Your task to perform on an android device: turn on the 24-hour format for clock Image 0: 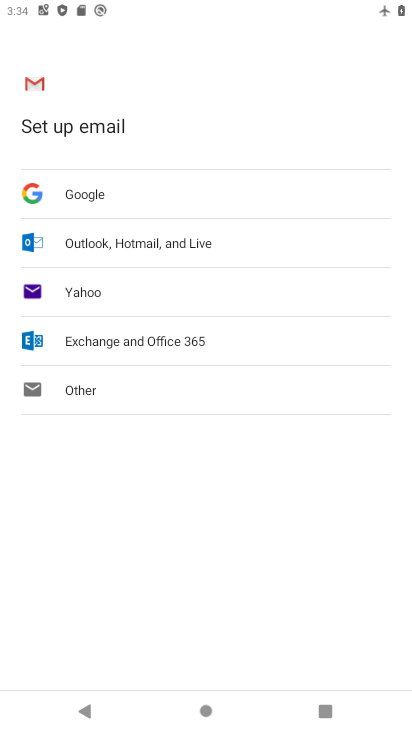
Step 0: press back button
Your task to perform on an android device: turn on the 24-hour format for clock Image 1: 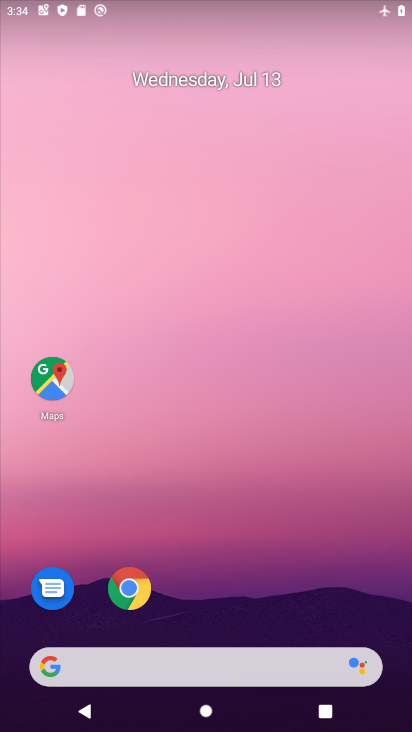
Step 1: drag from (274, 635) to (217, 276)
Your task to perform on an android device: turn on the 24-hour format for clock Image 2: 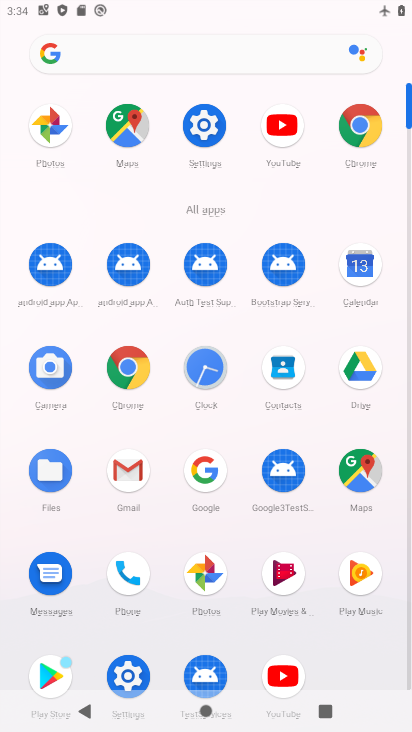
Step 2: click (207, 363)
Your task to perform on an android device: turn on the 24-hour format for clock Image 3: 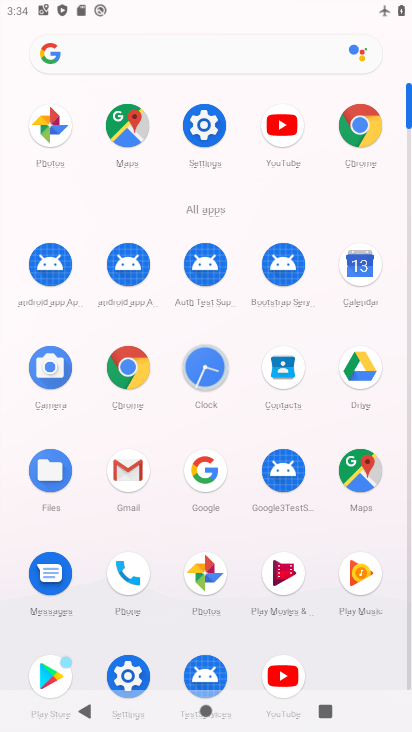
Step 3: click (210, 370)
Your task to perform on an android device: turn on the 24-hour format for clock Image 4: 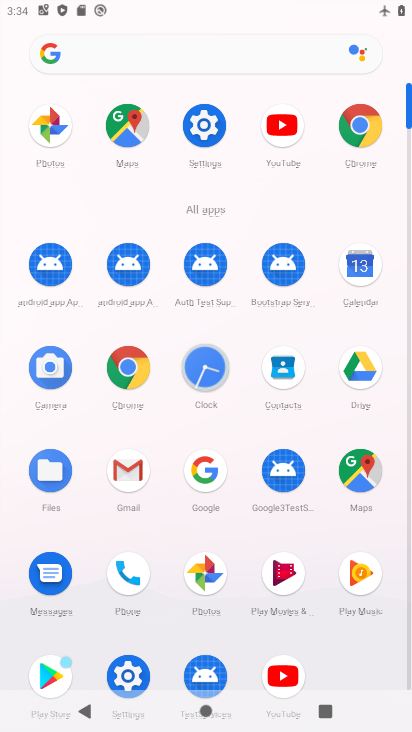
Step 4: click (210, 371)
Your task to perform on an android device: turn on the 24-hour format for clock Image 5: 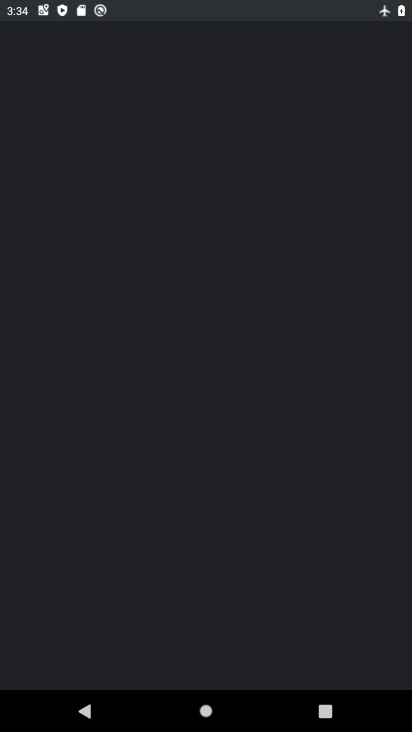
Step 5: click (210, 371)
Your task to perform on an android device: turn on the 24-hour format for clock Image 6: 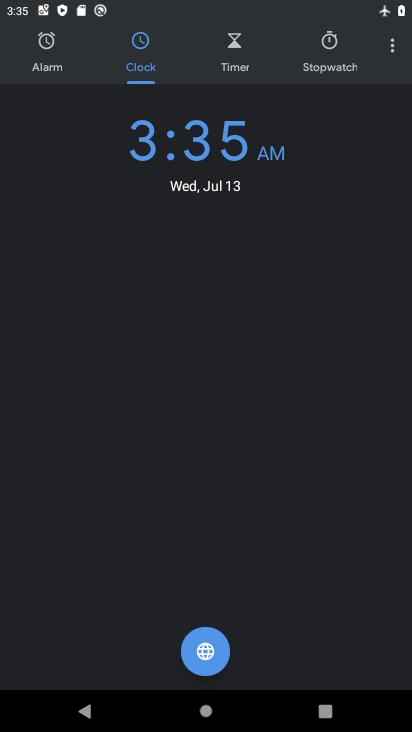
Step 6: click (388, 45)
Your task to perform on an android device: turn on the 24-hour format for clock Image 7: 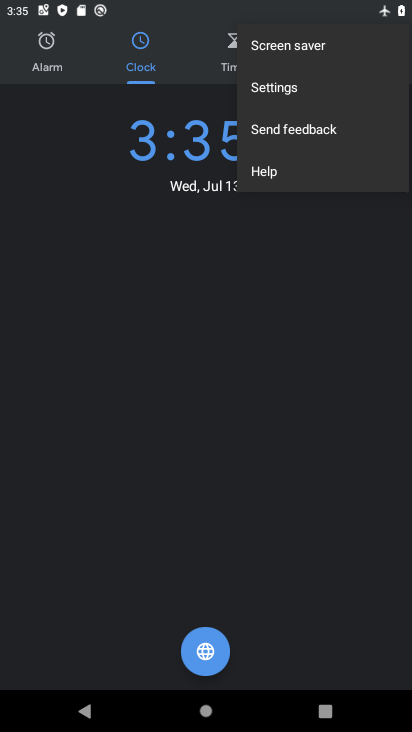
Step 7: click (276, 82)
Your task to perform on an android device: turn on the 24-hour format for clock Image 8: 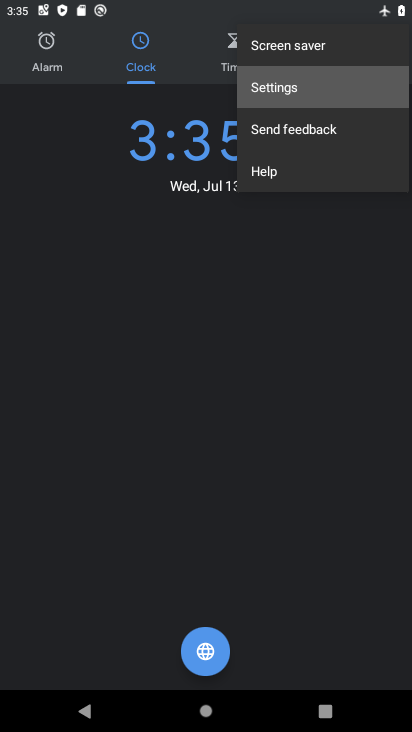
Step 8: click (276, 82)
Your task to perform on an android device: turn on the 24-hour format for clock Image 9: 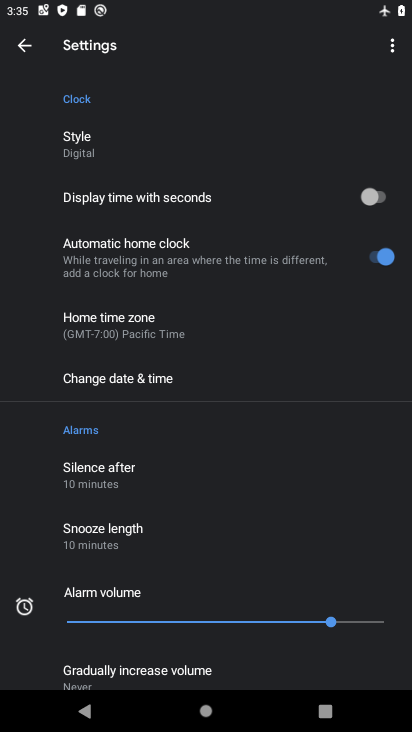
Step 9: click (126, 361)
Your task to perform on an android device: turn on the 24-hour format for clock Image 10: 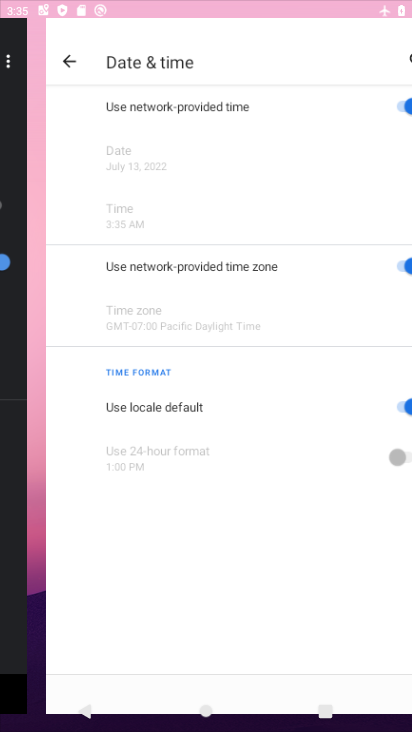
Step 10: click (121, 381)
Your task to perform on an android device: turn on the 24-hour format for clock Image 11: 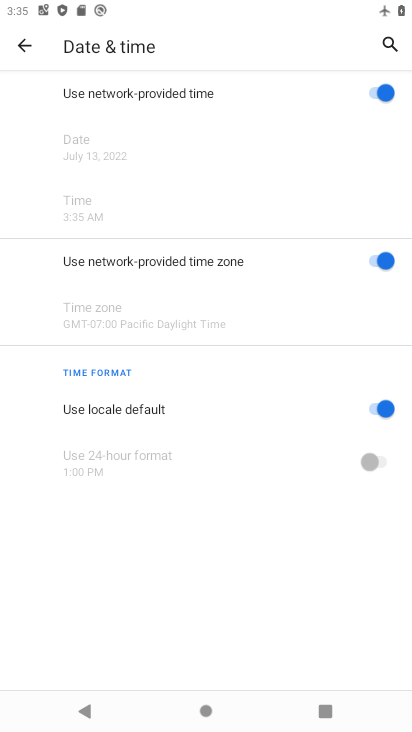
Step 11: click (387, 408)
Your task to perform on an android device: turn on the 24-hour format for clock Image 12: 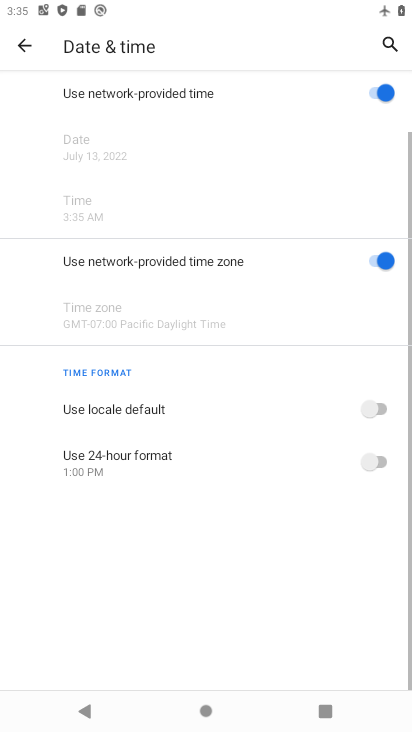
Step 12: click (372, 461)
Your task to perform on an android device: turn on the 24-hour format for clock Image 13: 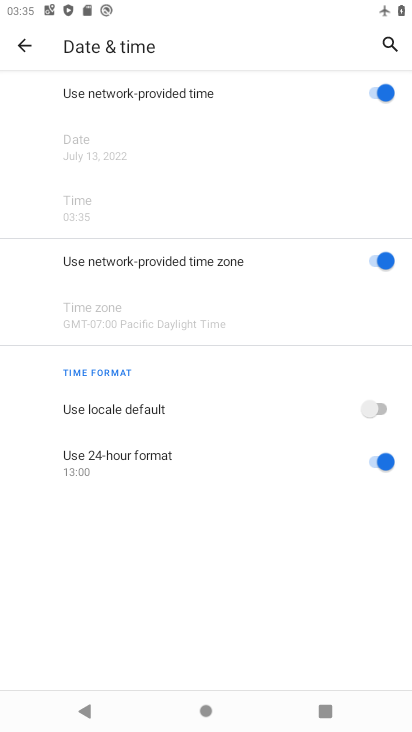
Step 13: task complete